Your task to perform on an android device: Show me popular games on the Play Store Image 0: 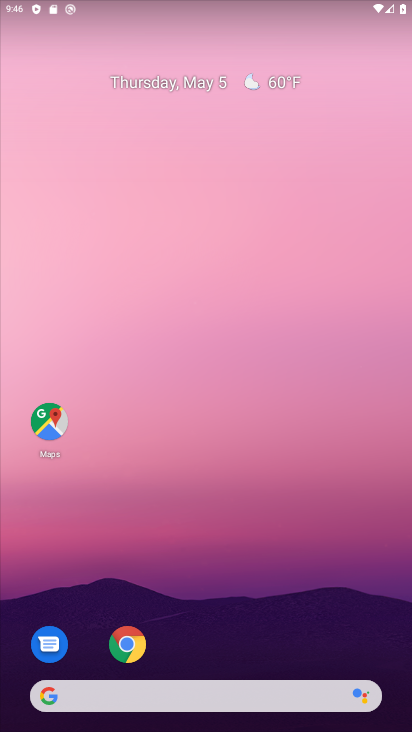
Step 0: drag from (362, 593) to (350, 60)
Your task to perform on an android device: Show me popular games on the Play Store Image 1: 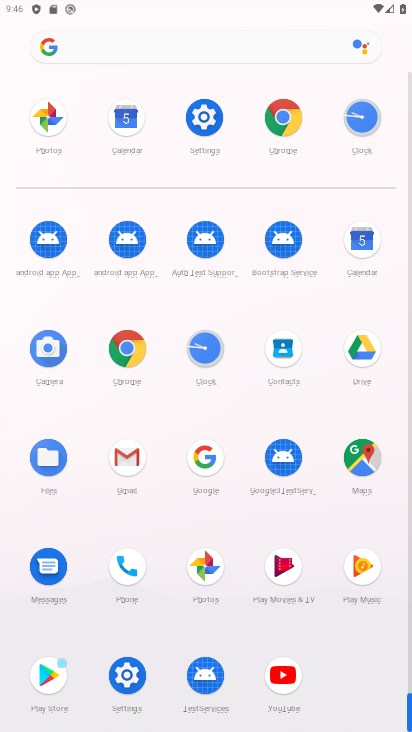
Step 1: click (49, 682)
Your task to perform on an android device: Show me popular games on the Play Store Image 2: 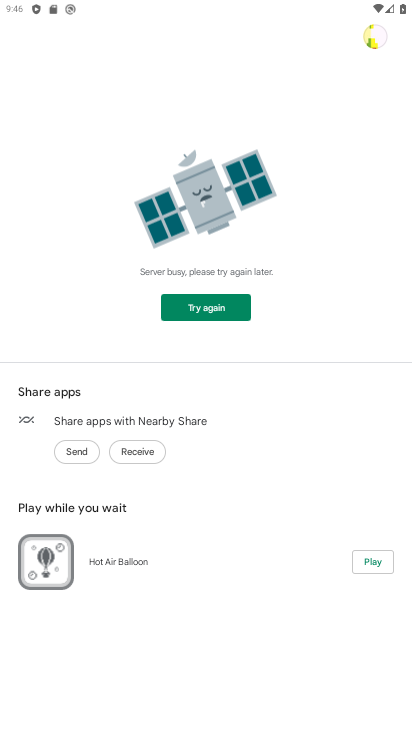
Step 2: task complete